Your task to perform on an android device: turn on translation in the chrome app Image 0: 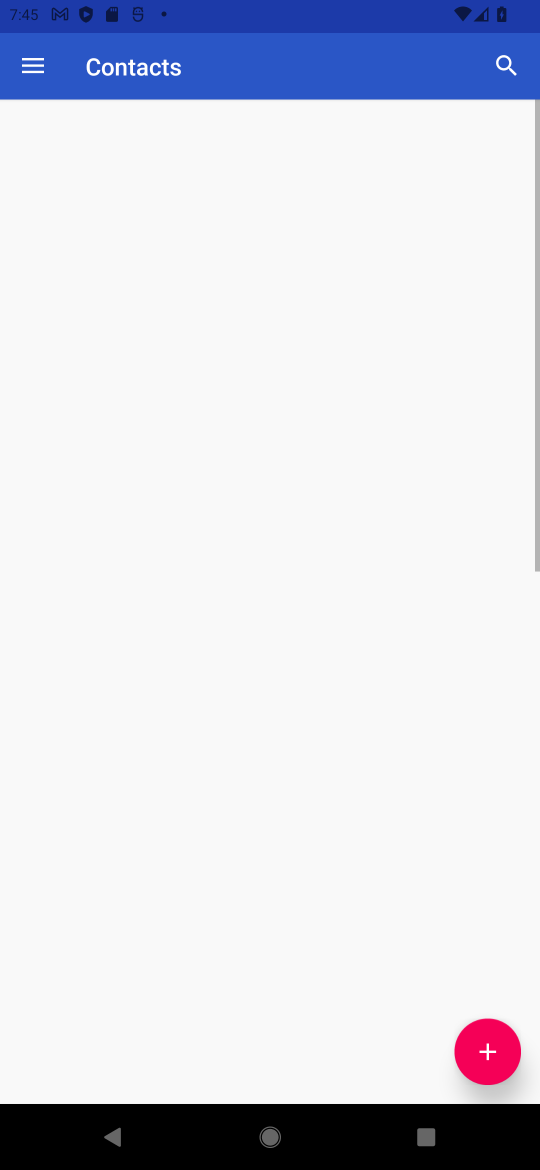
Step 0: press home button
Your task to perform on an android device: turn on translation in the chrome app Image 1: 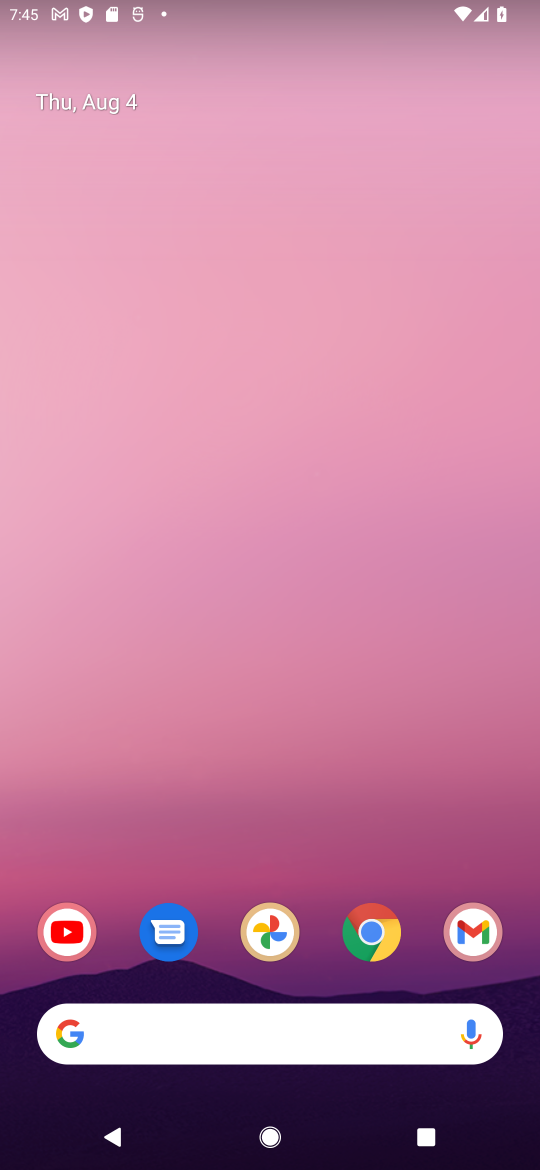
Step 1: click (387, 924)
Your task to perform on an android device: turn on translation in the chrome app Image 2: 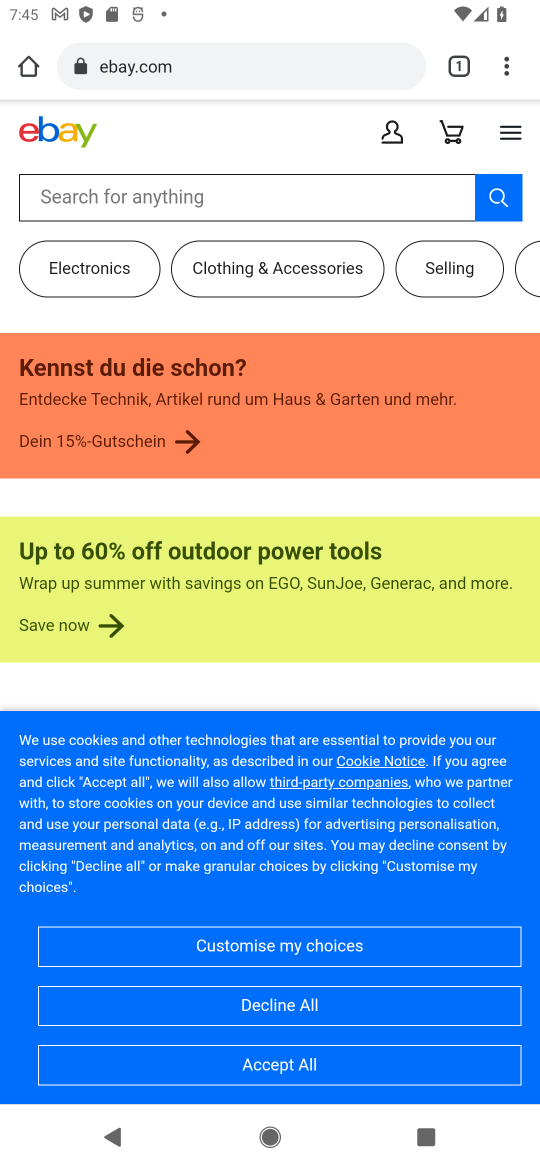
Step 2: click (513, 65)
Your task to perform on an android device: turn on translation in the chrome app Image 3: 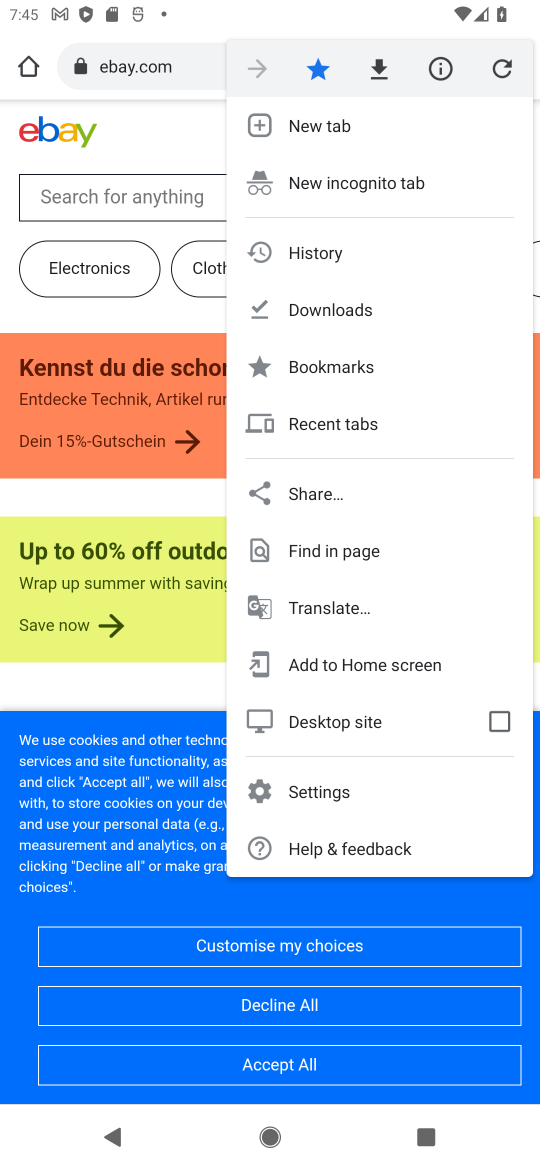
Step 3: click (313, 795)
Your task to perform on an android device: turn on translation in the chrome app Image 4: 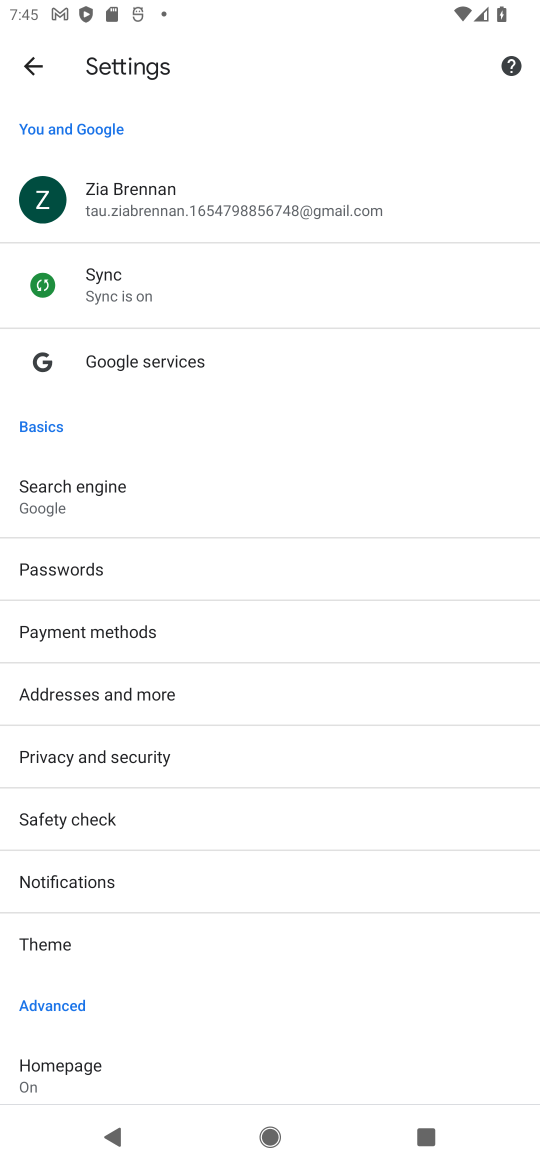
Step 4: drag from (173, 994) to (160, 628)
Your task to perform on an android device: turn on translation in the chrome app Image 5: 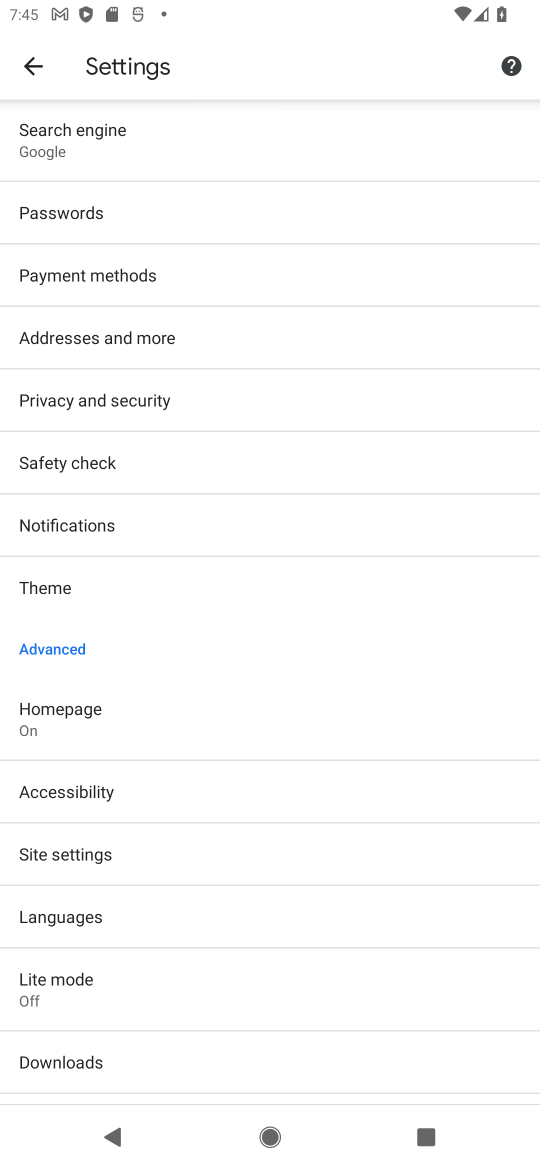
Step 5: click (236, 920)
Your task to perform on an android device: turn on translation in the chrome app Image 6: 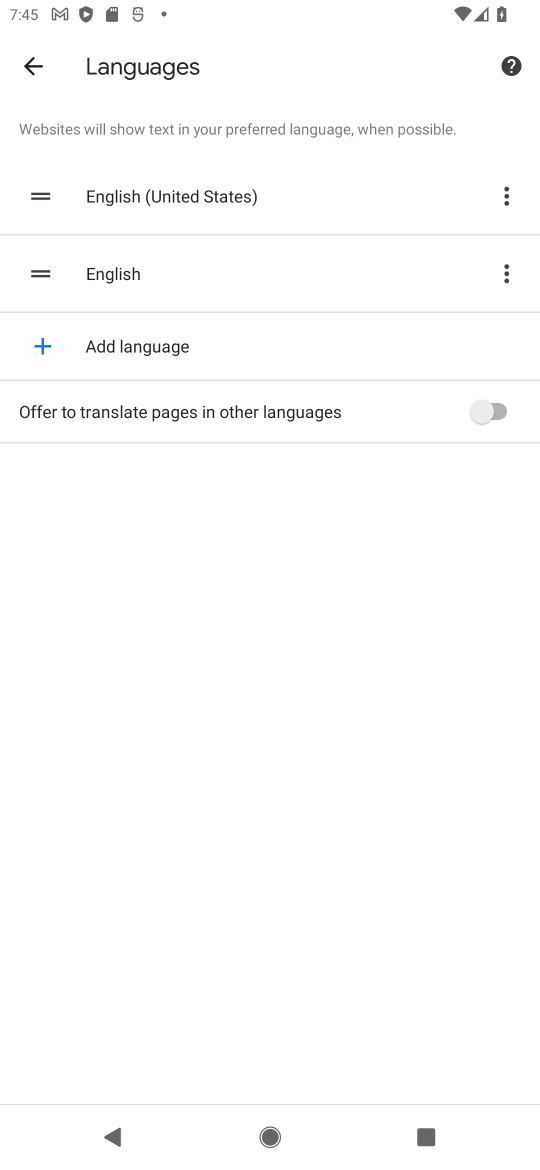
Step 6: click (492, 409)
Your task to perform on an android device: turn on translation in the chrome app Image 7: 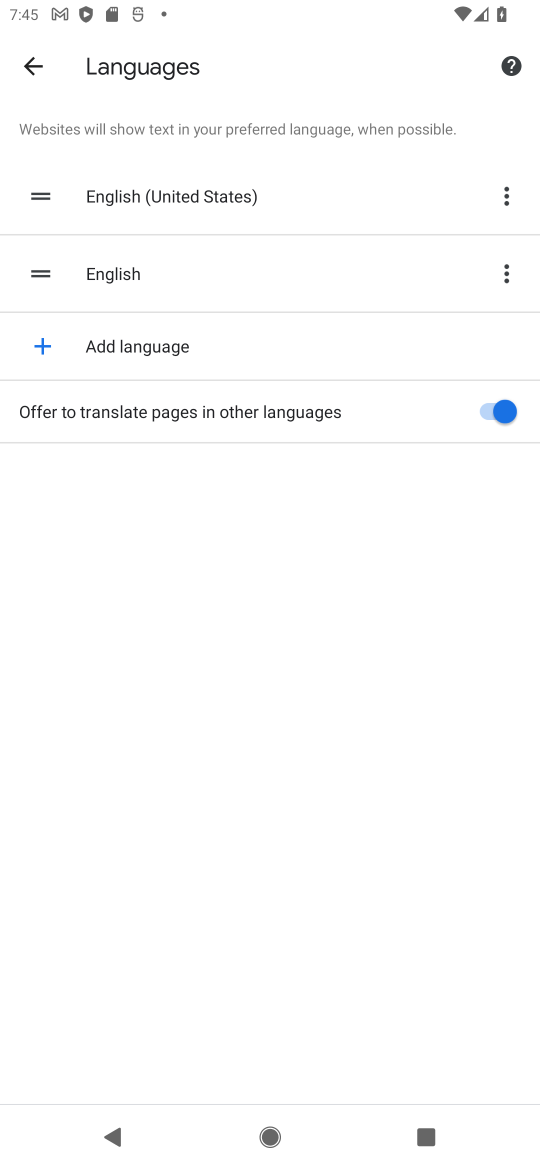
Step 7: task complete